Your task to perform on an android device: Search for acer nitro on target, select the first entry, and add it to the cart. Image 0: 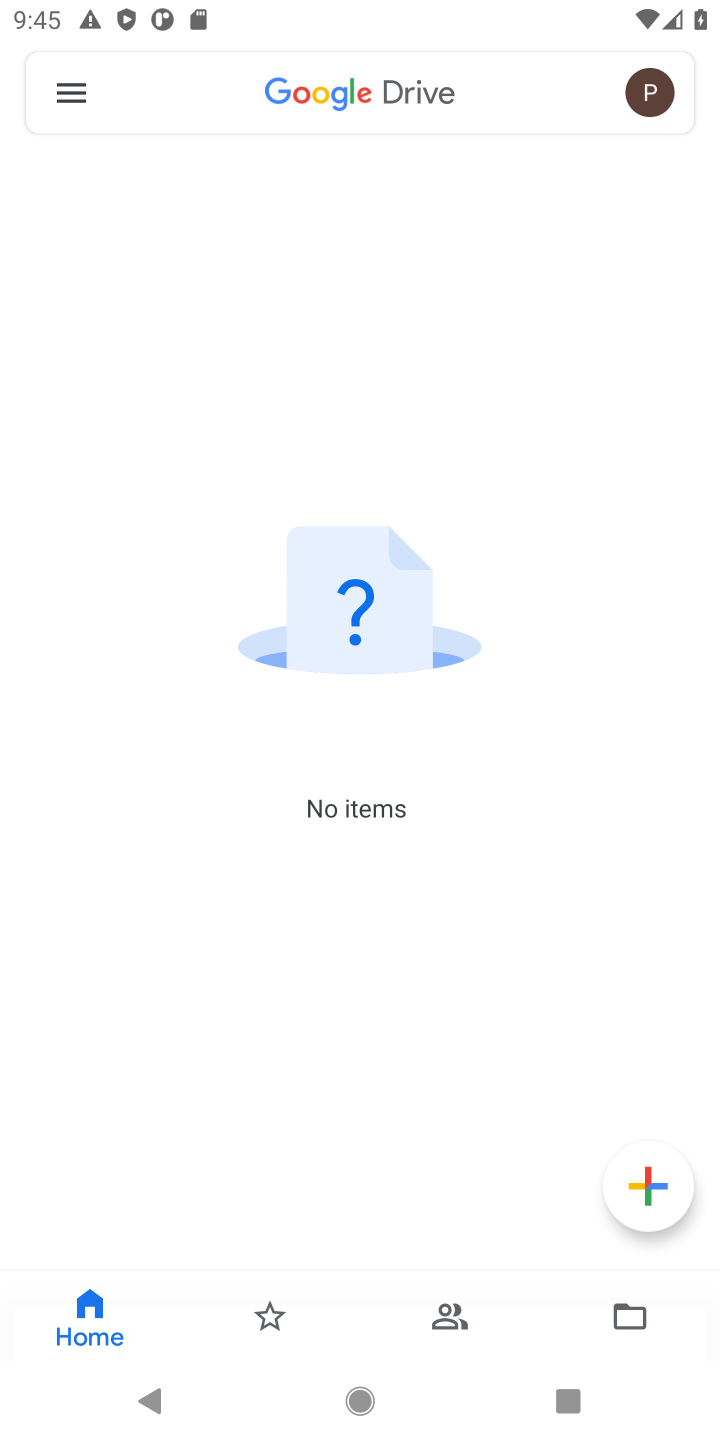
Step 0: press home button
Your task to perform on an android device: Search for acer nitro on target, select the first entry, and add it to the cart. Image 1: 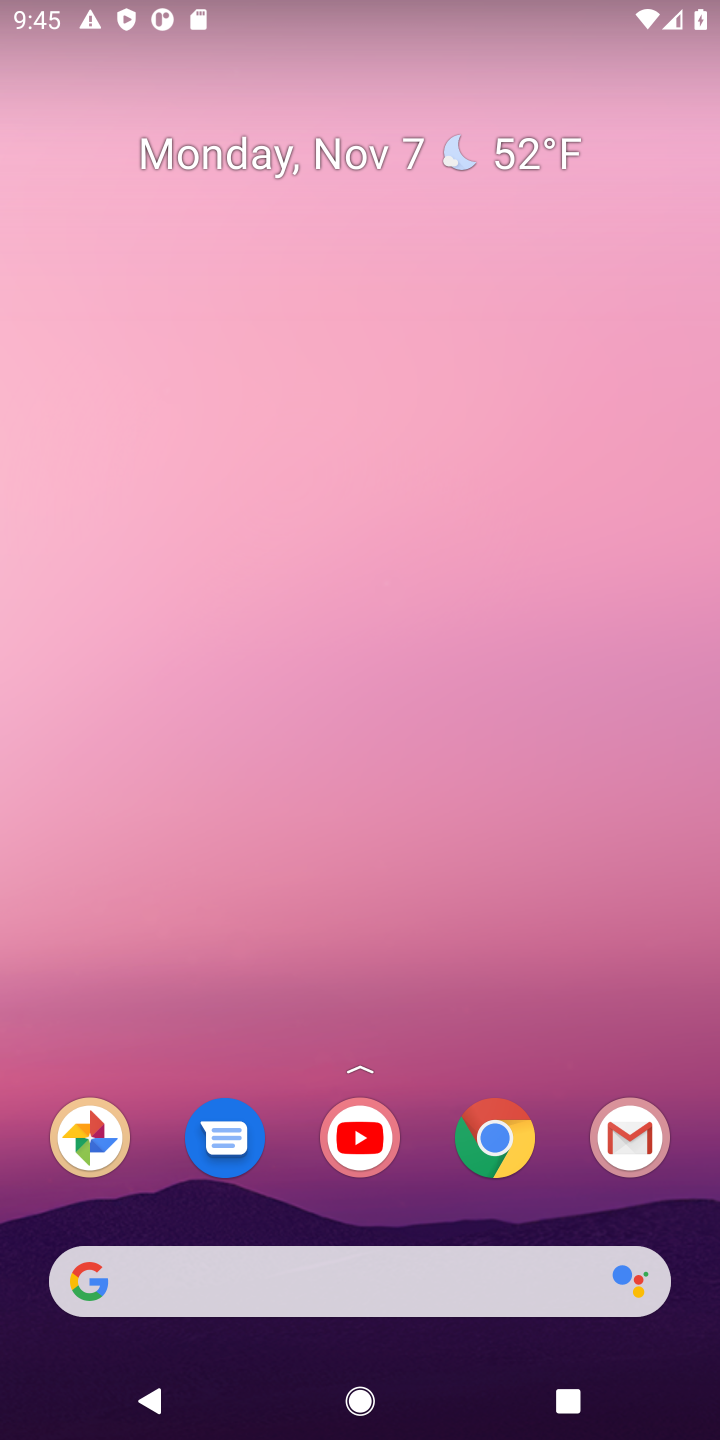
Step 1: drag from (395, 1224) to (464, 168)
Your task to perform on an android device: Search for acer nitro on target, select the first entry, and add it to the cart. Image 2: 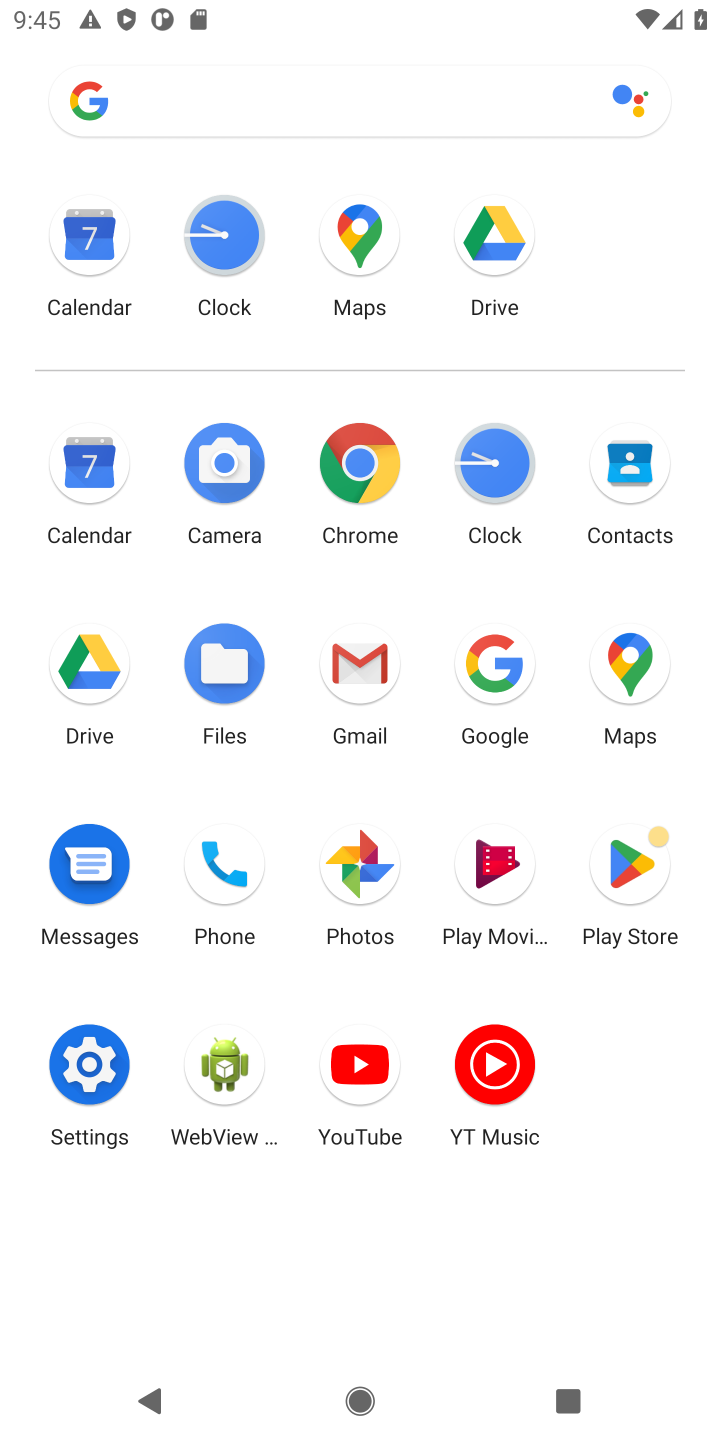
Step 2: click (353, 455)
Your task to perform on an android device: Search for acer nitro on target, select the first entry, and add it to the cart. Image 3: 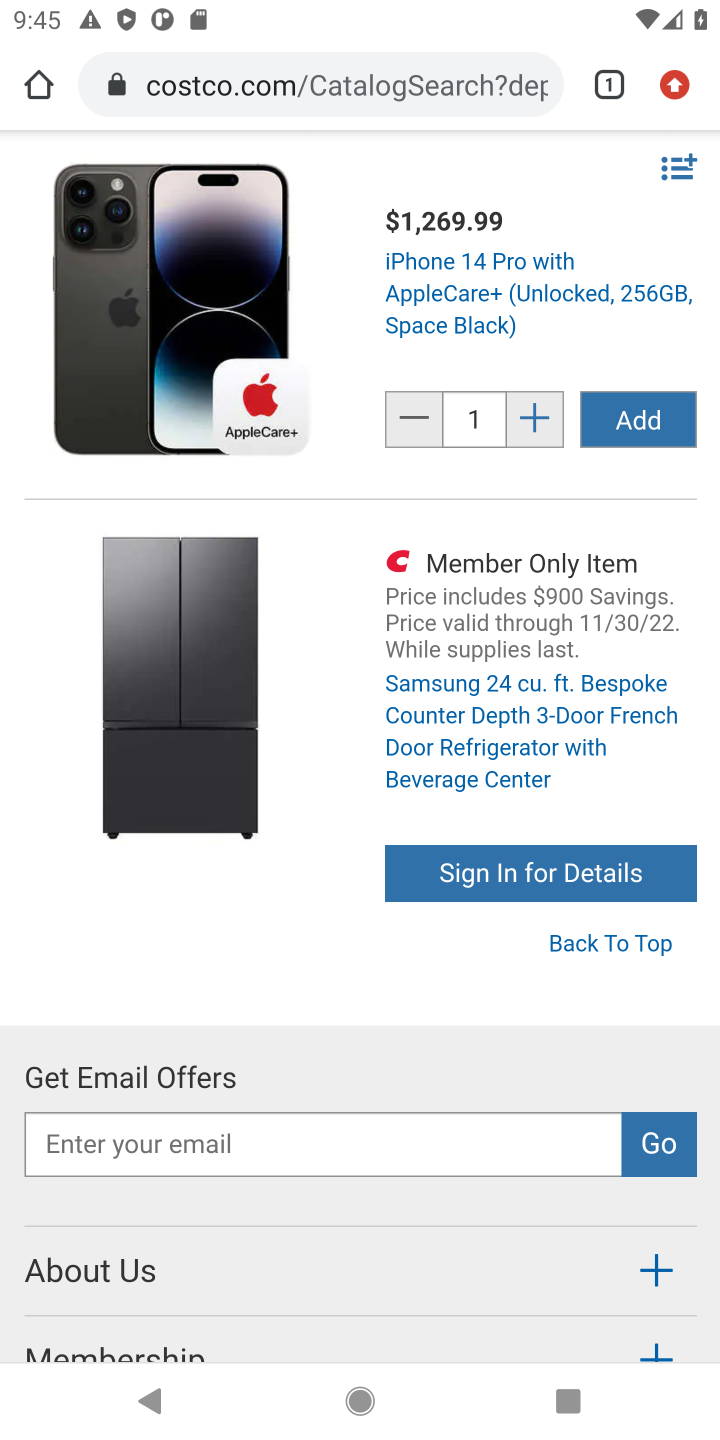
Step 3: click (372, 85)
Your task to perform on an android device: Search for acer nitro on target, select the first entry, and add it to the cart. Image 4: 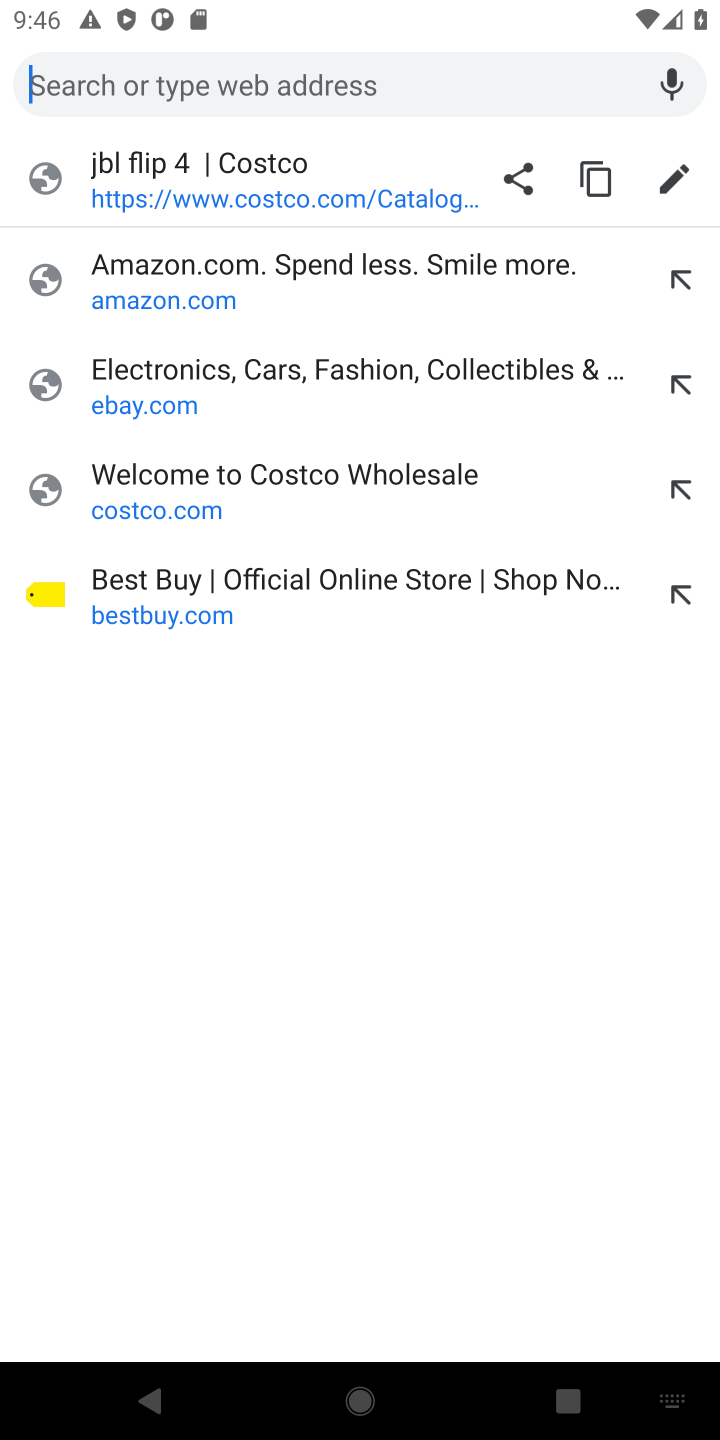
Step 4: type "target.com"
Your task to perform on an android device: Search for acer nitro on target, select the first entry, and add it to the cart. Image 5: 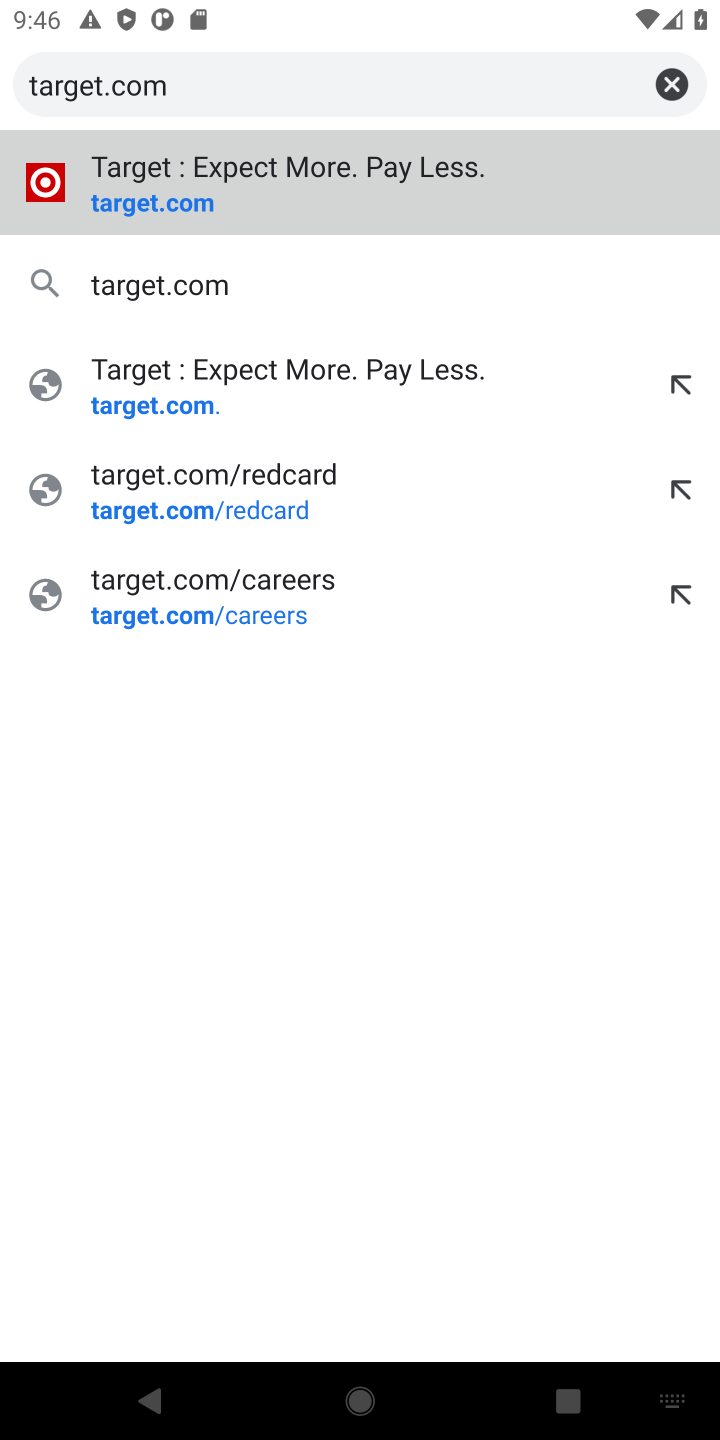
Step 5: press enter
Your task to perform on an android device: Search for acer nitro on target, select the first entry, and add it to the cart. Image 6: 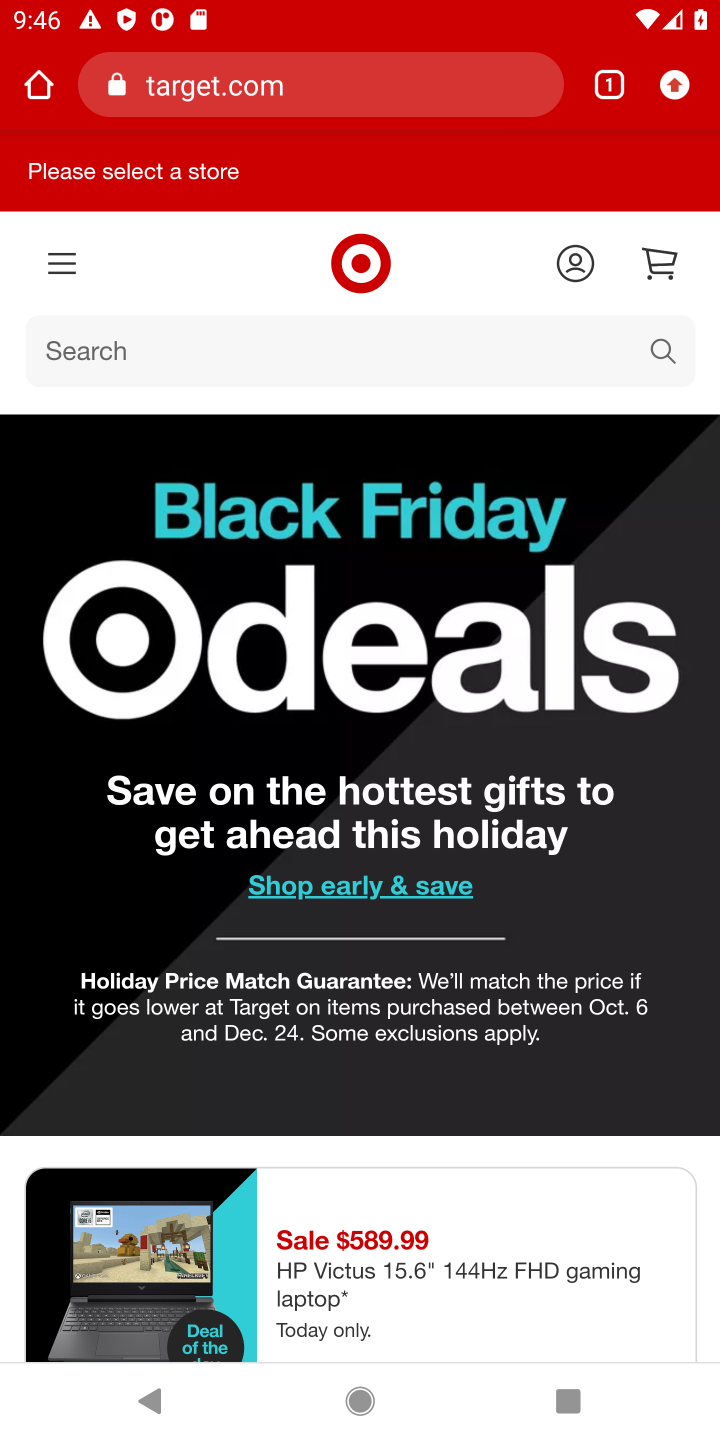
Step 6: click (411, 367)
Your task to perform on an android device: Search for acer nitro on target, select the first entry, and add it to the cart. Image 7: 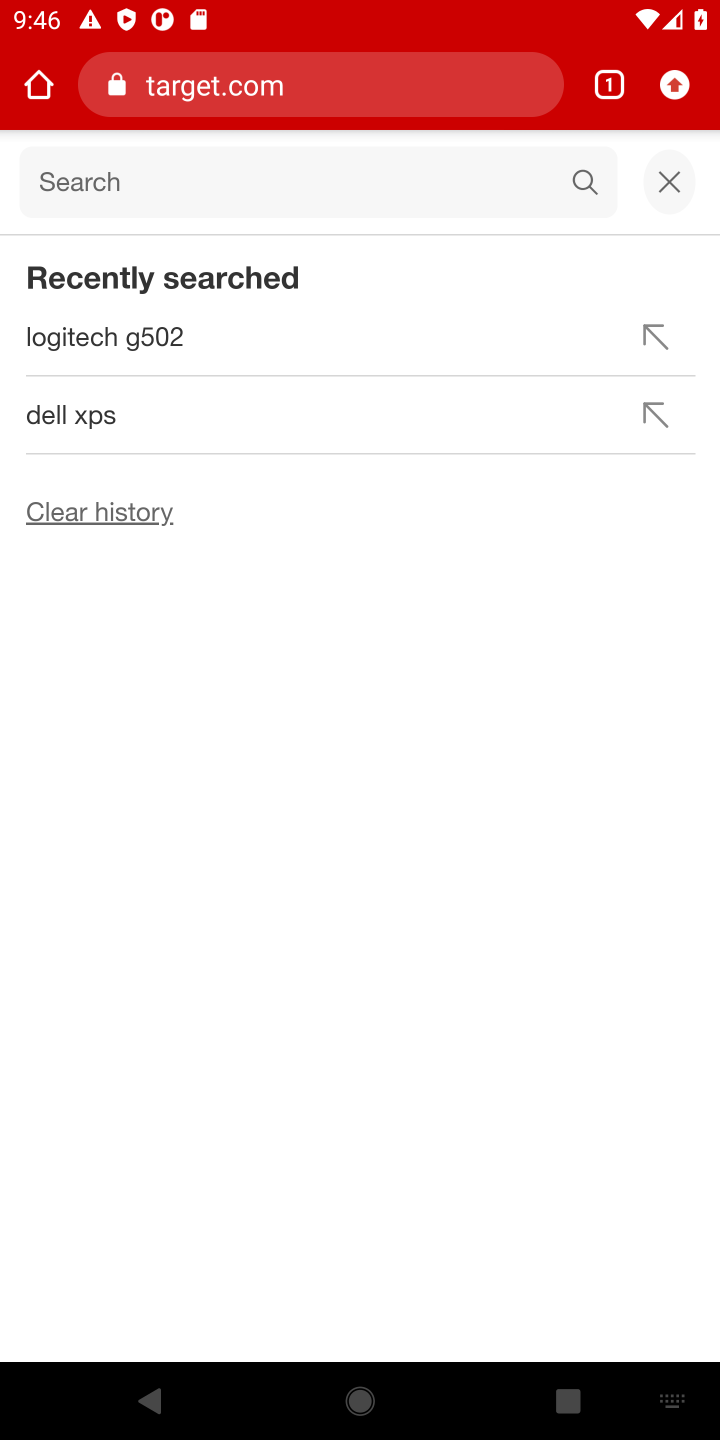
Step 7: type "acer nitro"
Your task to perform on an android device: Search for acer nitro on target, select the first entry, and add it to the cart. Image 8: 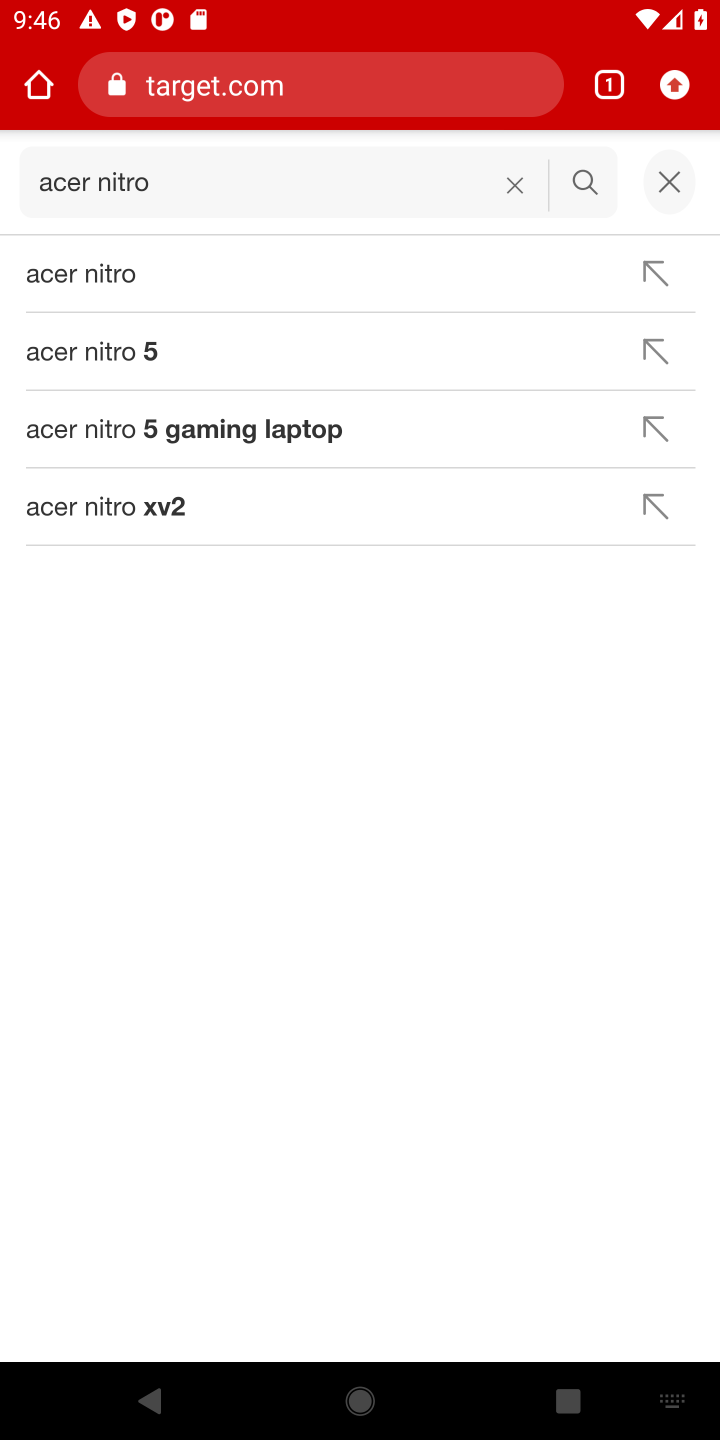
Step 8: press enter
Your task to perform on an android device: Search for acer nitro on target, select the first entry, and add it to the cart. Image 9: 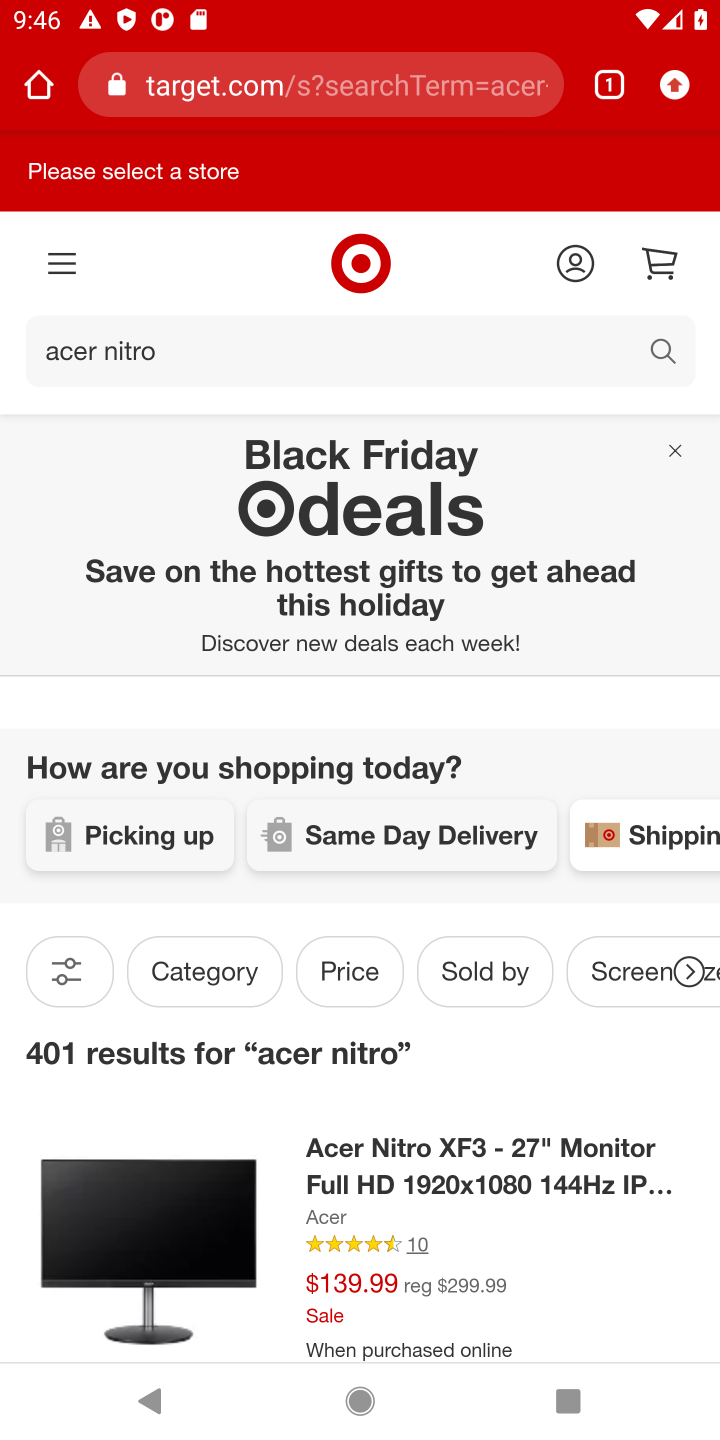
Step 9: drag from (529, 1067) to (514, 354)
Your task to perform on an android device: Search for acer nitro on target, select the first entry, and add it to the cart. Image 10: 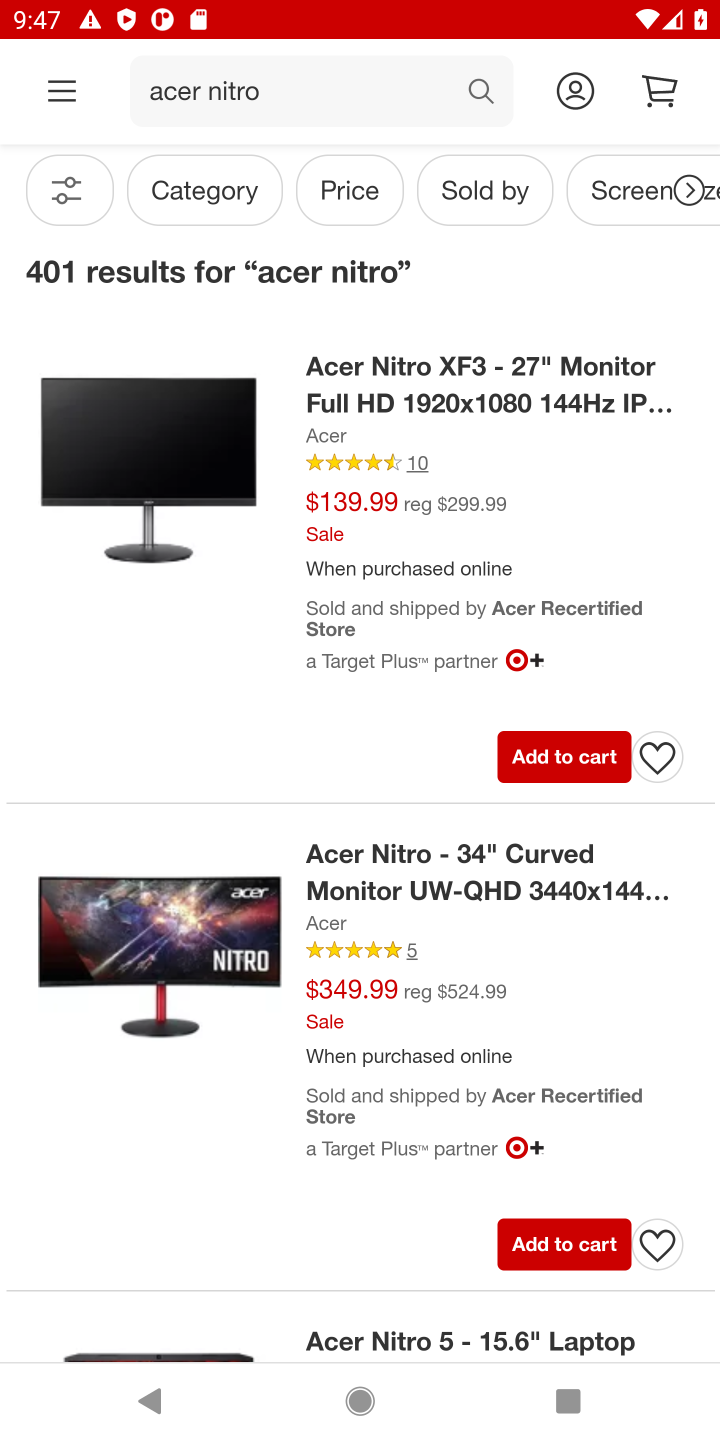
Step 10: click (592, 769)
Your task to perform on an android device: Search for acer nitro on target, select the first entry, and add it to the cart. Image 11: 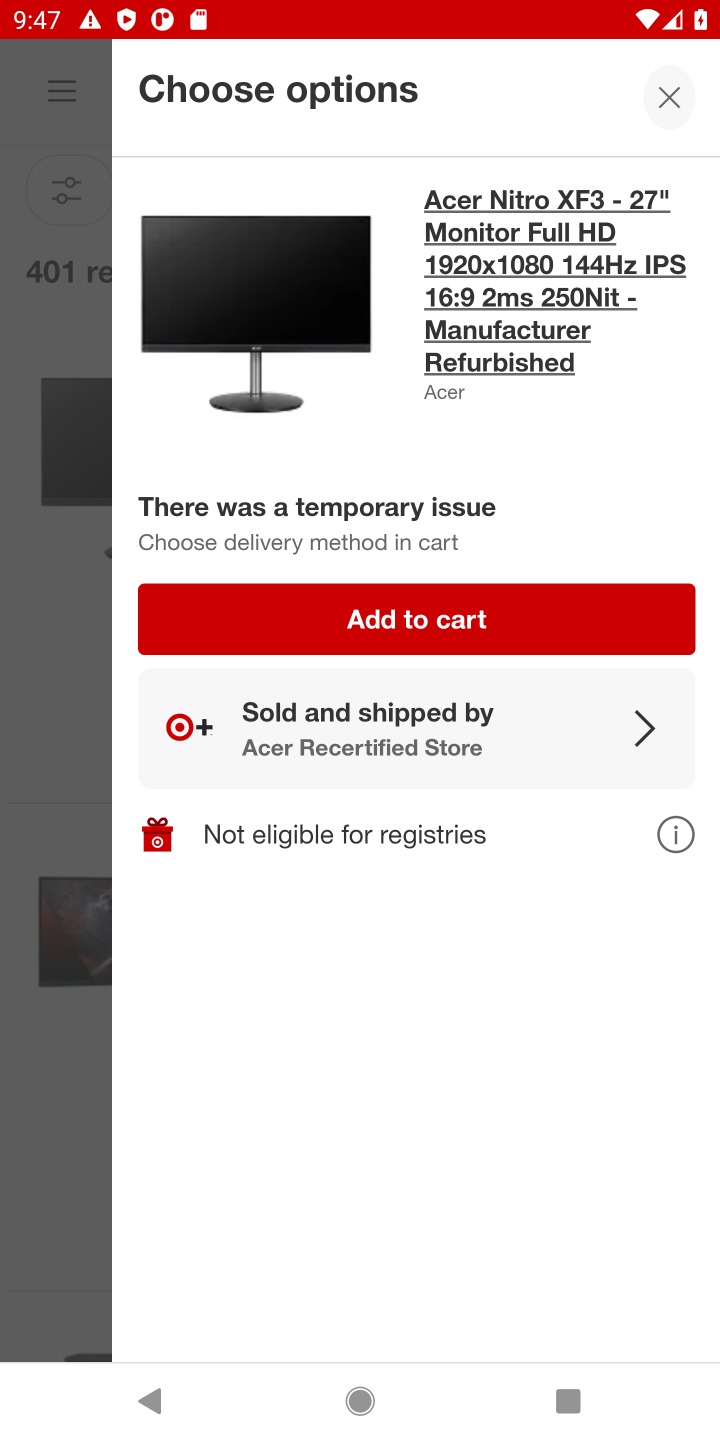
Step 11: click (446, 632)
Your task to perform on an android device: Search for acer nitro on target, select the first entry, and add it to the cart. Image 12: 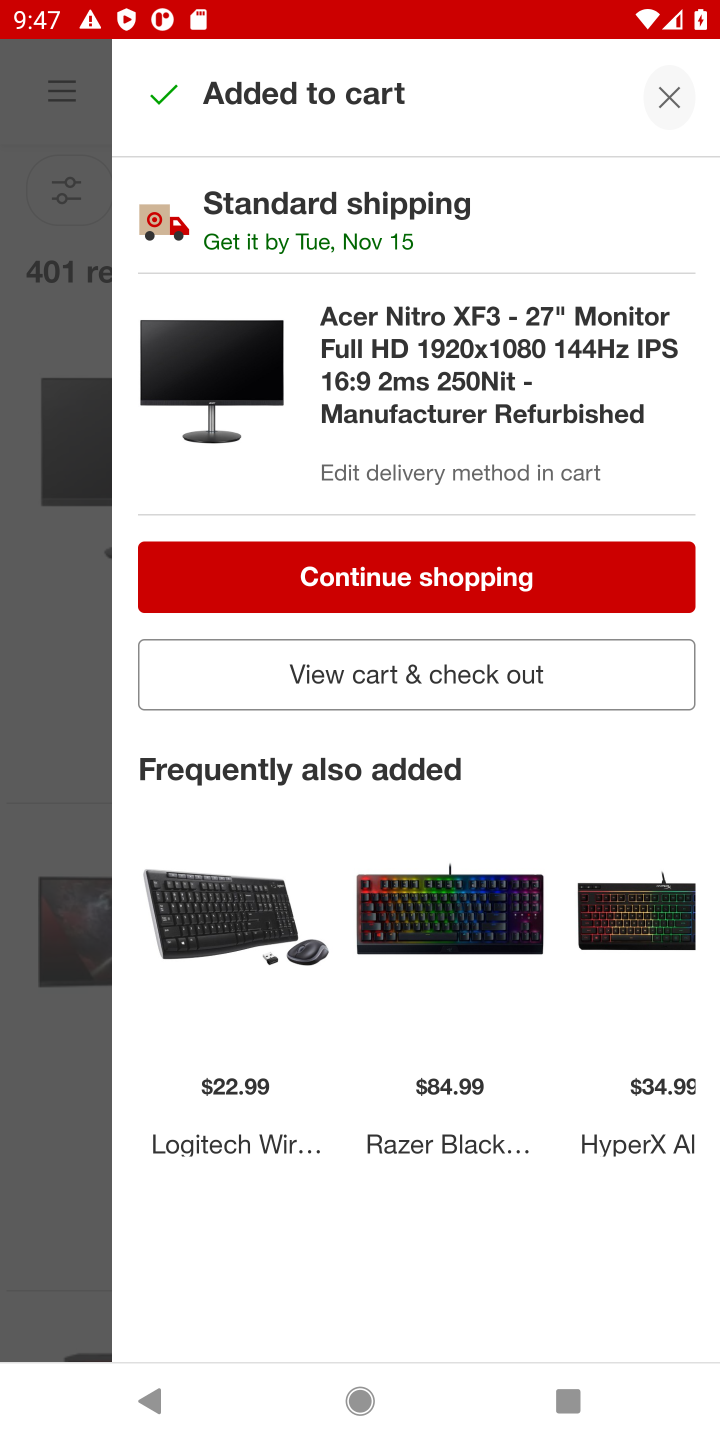
Step 12: task complete